Your task to perform on an android device: turn pop-ups on in chrome Image 0: 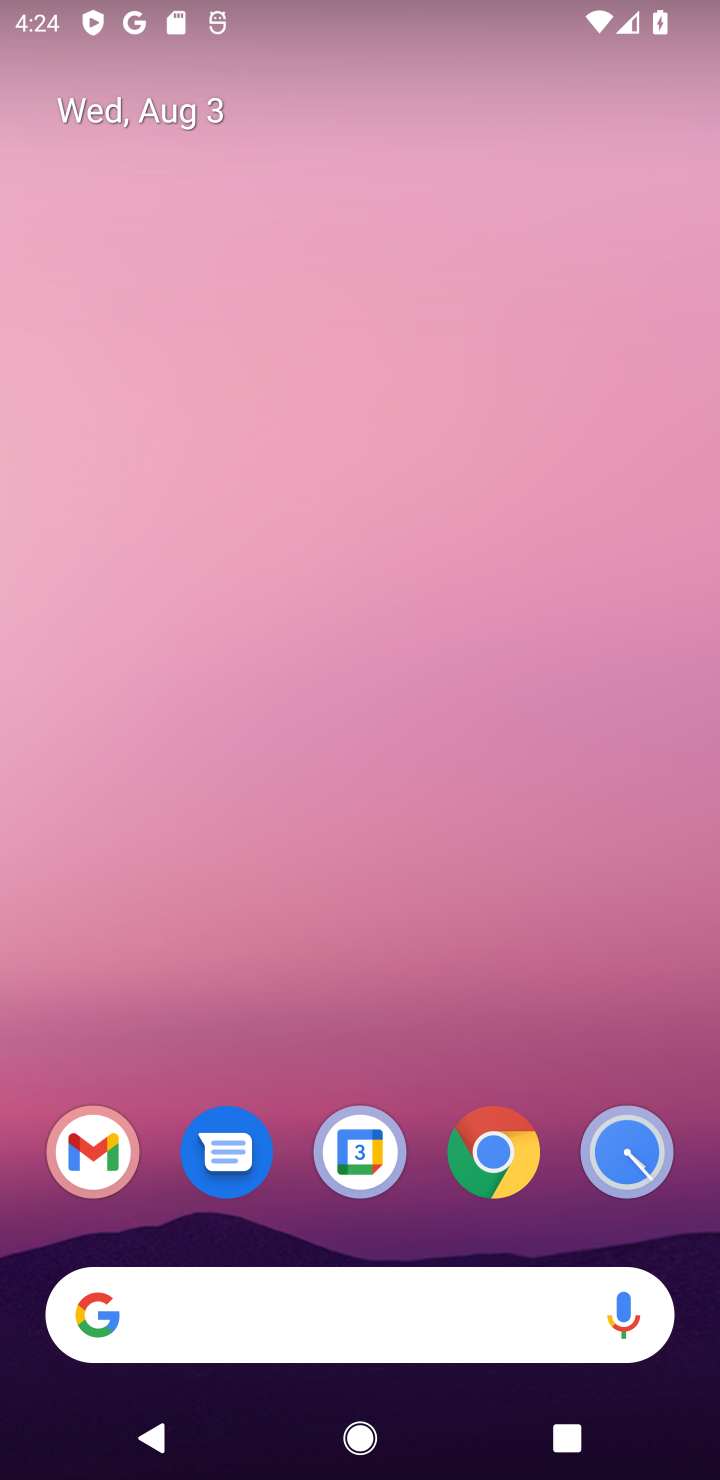
Step 0: click (472, 1167)
Your task to perform on an android device: turn pop-ups on in chrome Image 1: 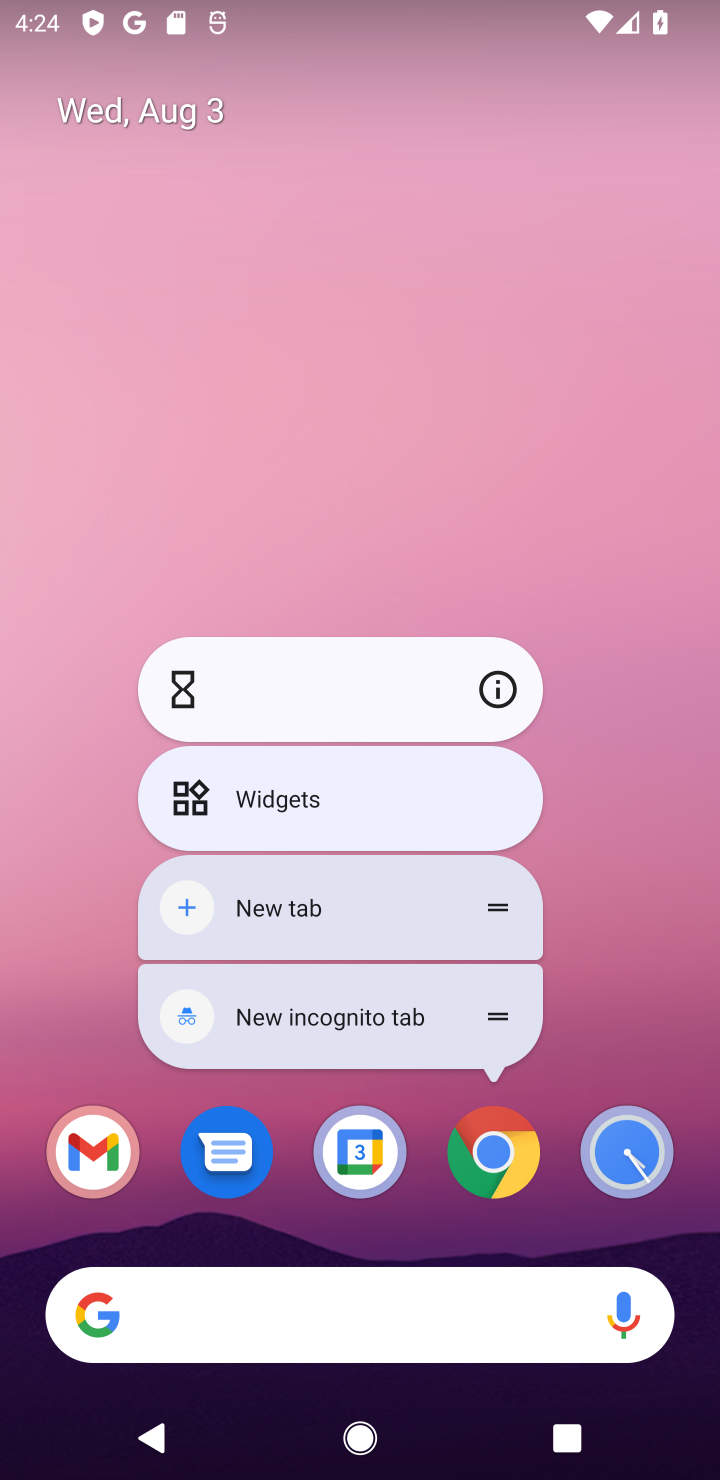
Step 1: click (476, 1148)
Your task to perform on an android device: turn pop-ups on in chrome Image 2: 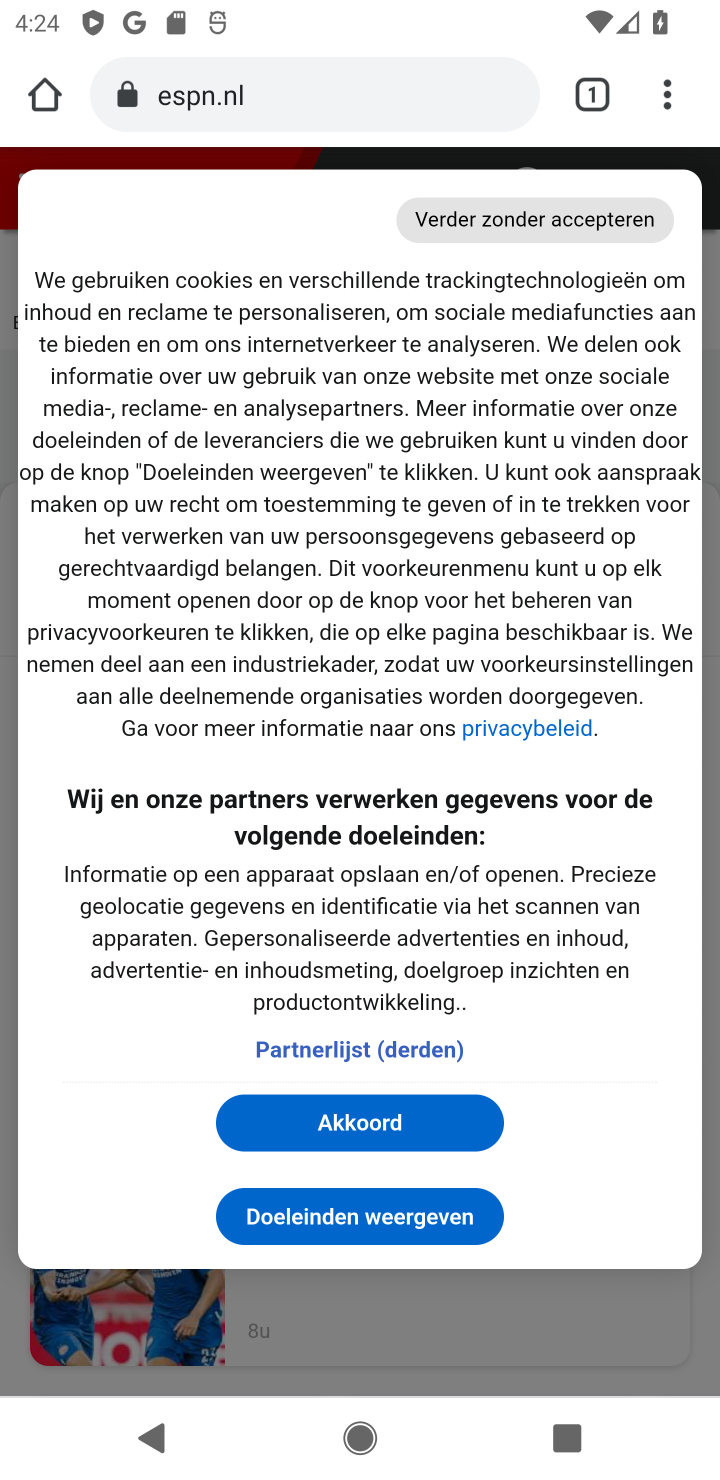
Step 2: drag from (669, 96) to (394, 1242)
Your task to perform on an android device: turn pop-ups on in chrome Image 3: 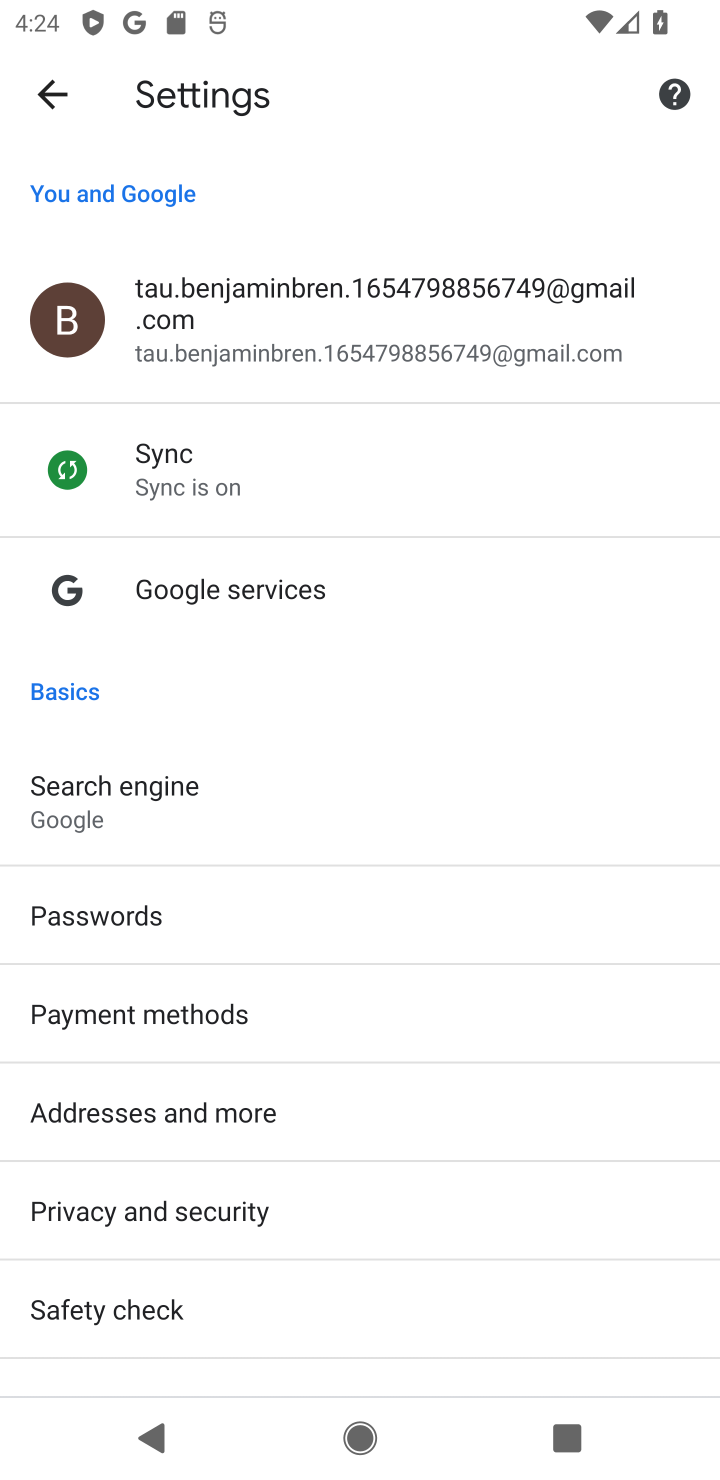
Step 3: drag from (285, 1169) to (350, 603)
Your task to perform on an android device: turn pop-ups on in chrome Image 4: 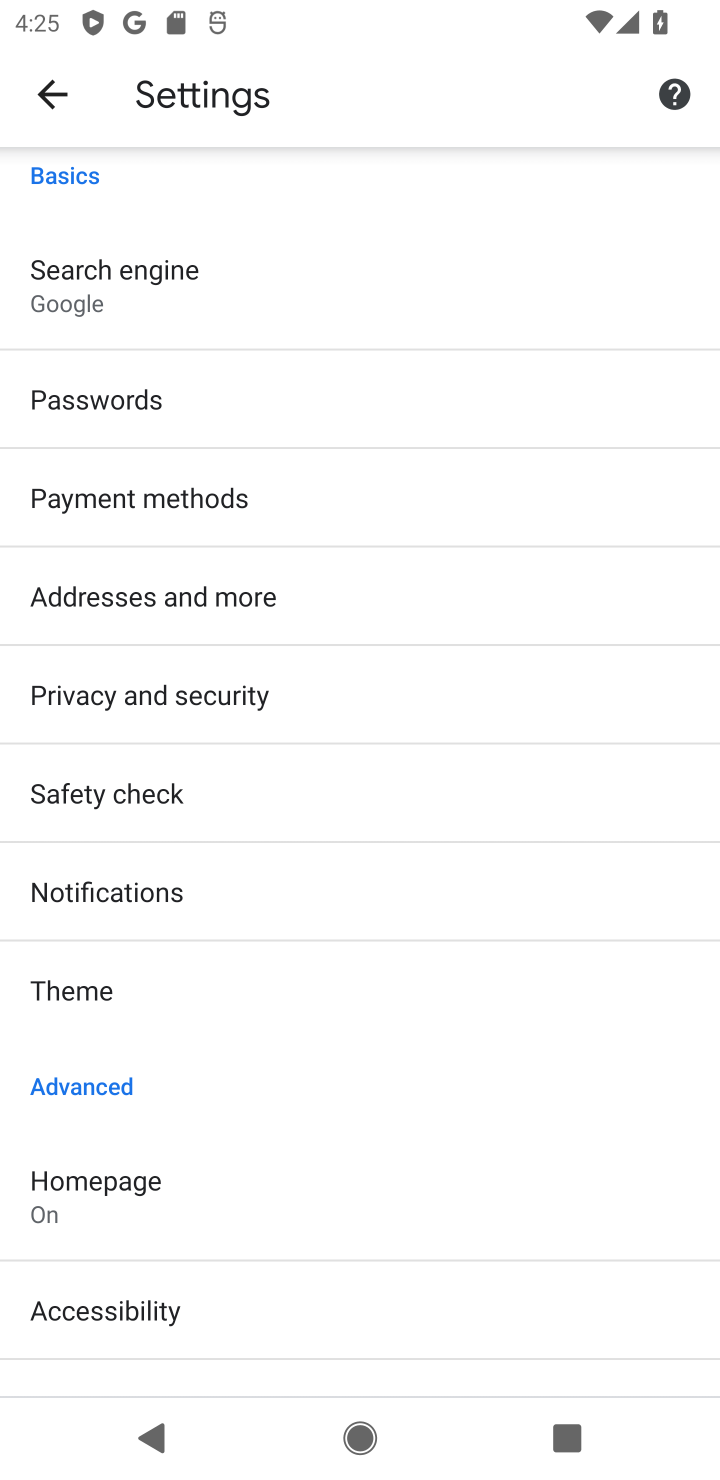
Step 4: drag from (252, 1236) to (317, 676)
Your task to perform on an android device: turn pop-ups on in chrome Image 5: 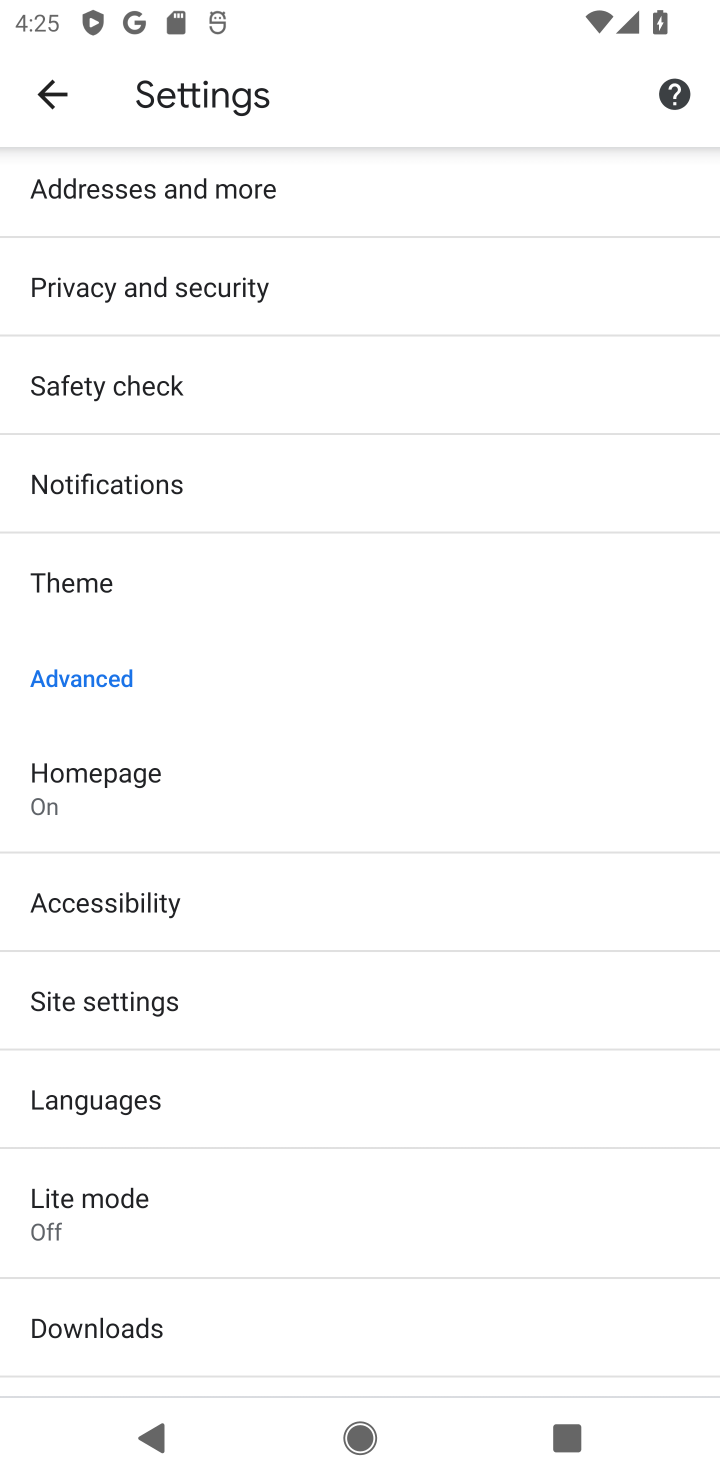
Step 5: click (157, 1040)
Your task to perform on an android device: turn pop-ups on in chrome Image 6: 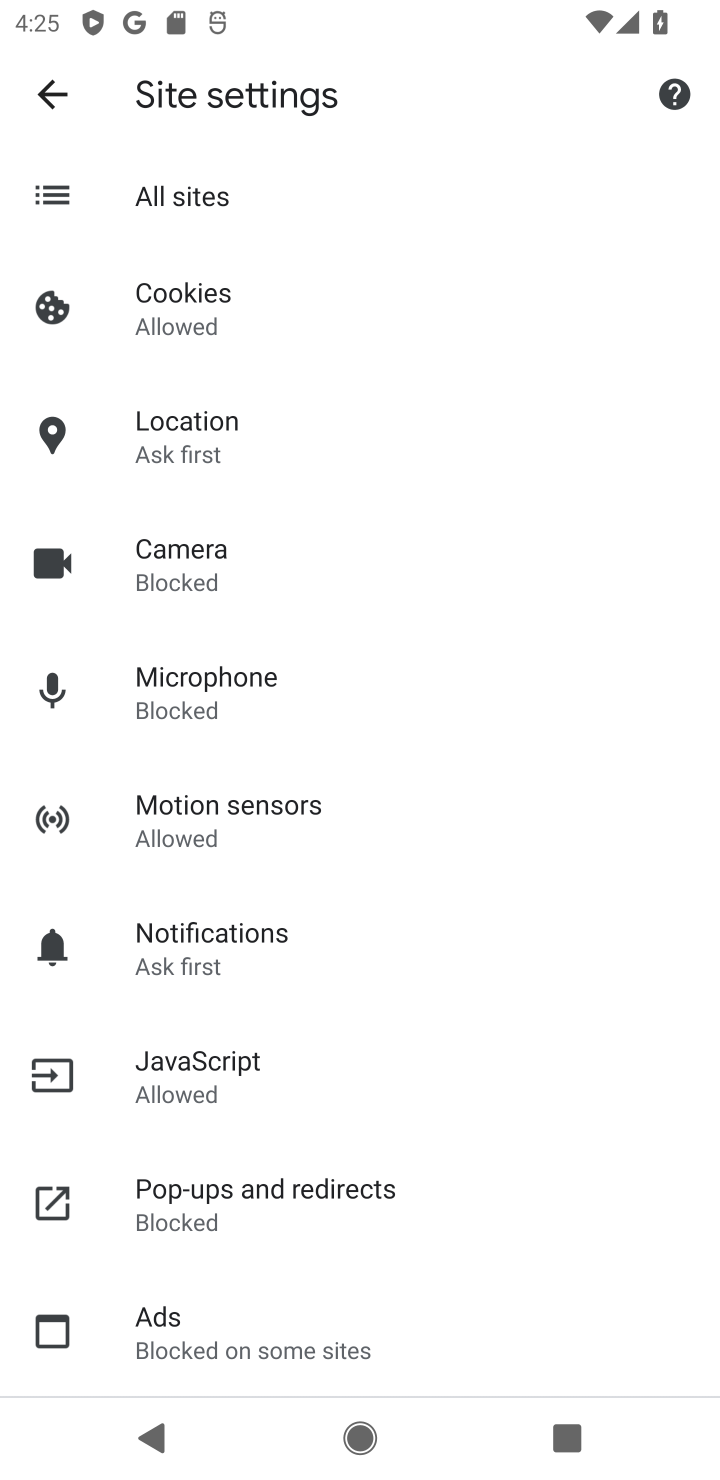
Step 6: click (257, 1191)
Your task to perform on an android device: turn pop-ups on in chrome Image 7: 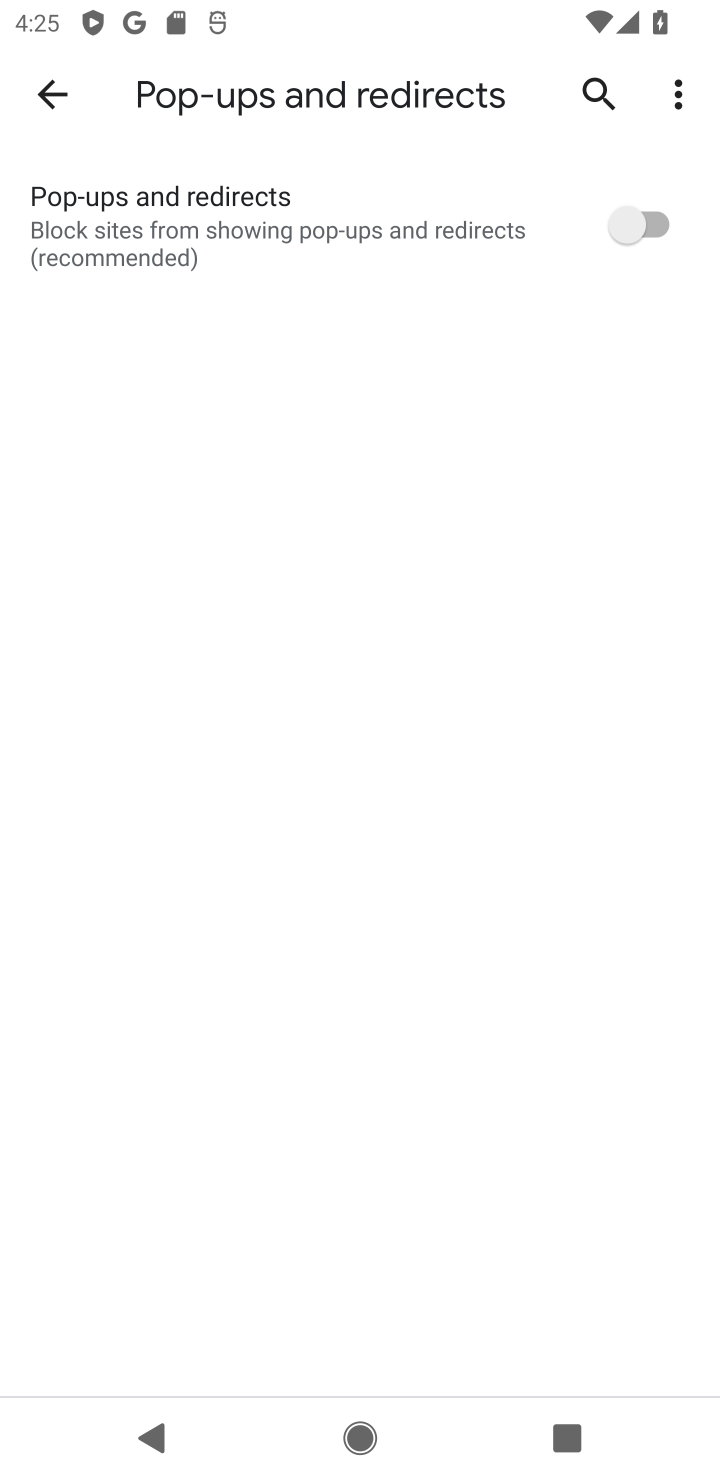
Step 7: click (639, 227)
Your task to perform on an android device: turn pop-ups on in chrome Image 8: 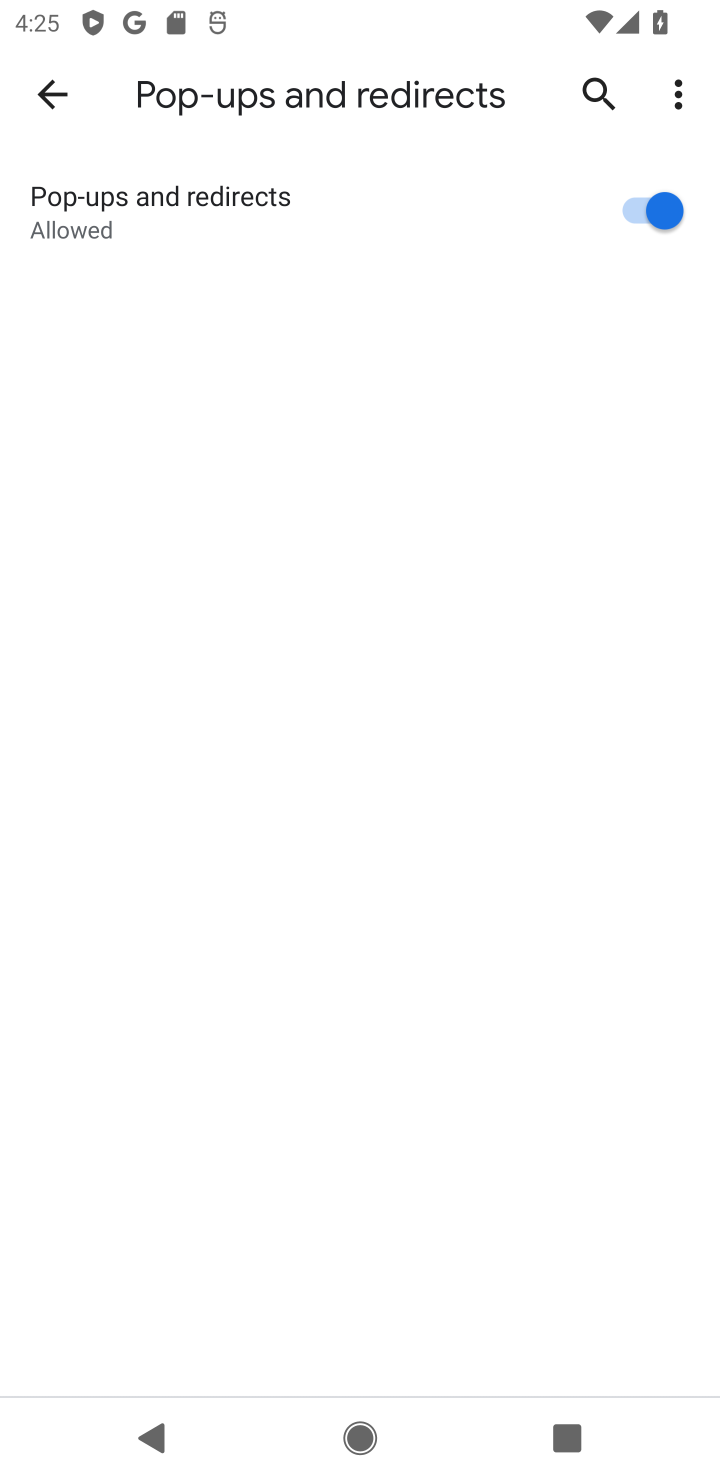
Step 8: task complete